Your task to perform on an android device: change the clock display to analog Image 0: 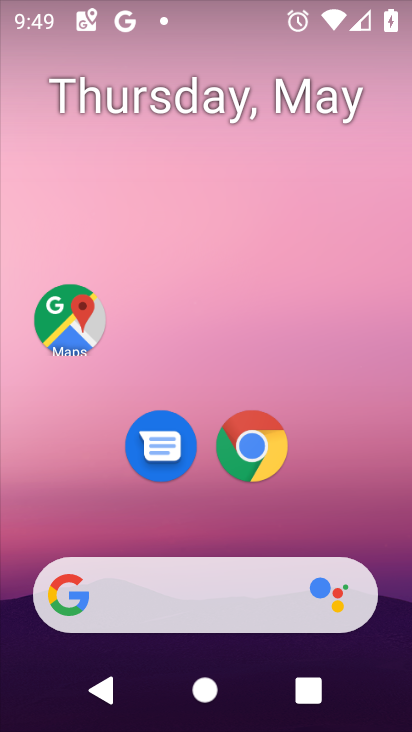
Step 0: drag from (351, 485) to (347, 126)
Your task to perform on an android device: change the clock display to analog Image 1: 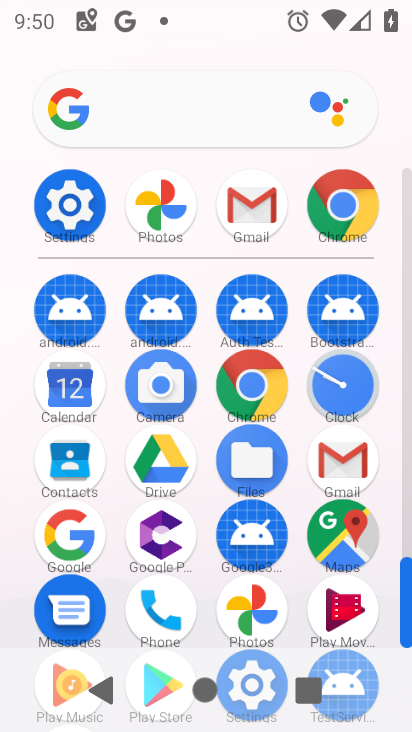
Step 1: click (362, 373)
Your task to perform on an android device: change the clock display to analog Image 2: 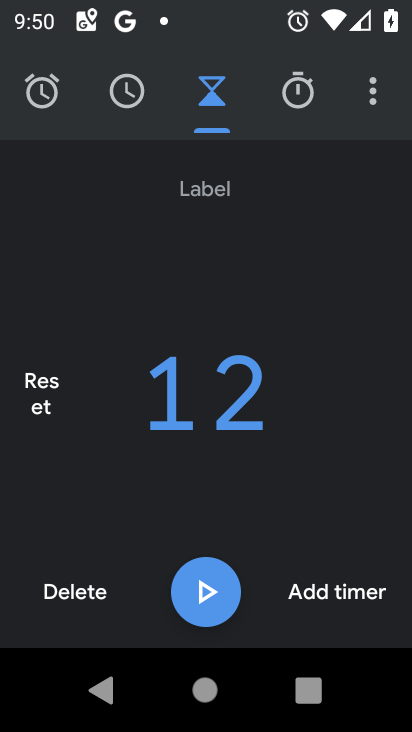
Step 2: task complete